Your task to perform on an android device: Search for logitech g903 on amazon.com, select the first entry, add it to the cart, then select checkout. Image 0: 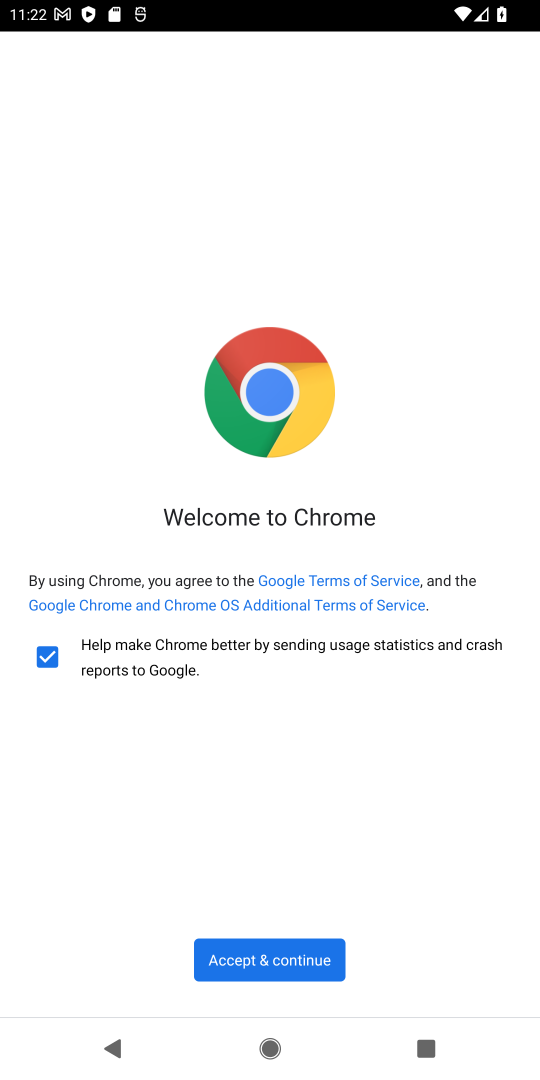
Step 0: click (319, 966)
Your task to perform on an android device: Search for logitech g903 on amazon.com, select the first entry, add it to the cart, then select checkout. Image 1: 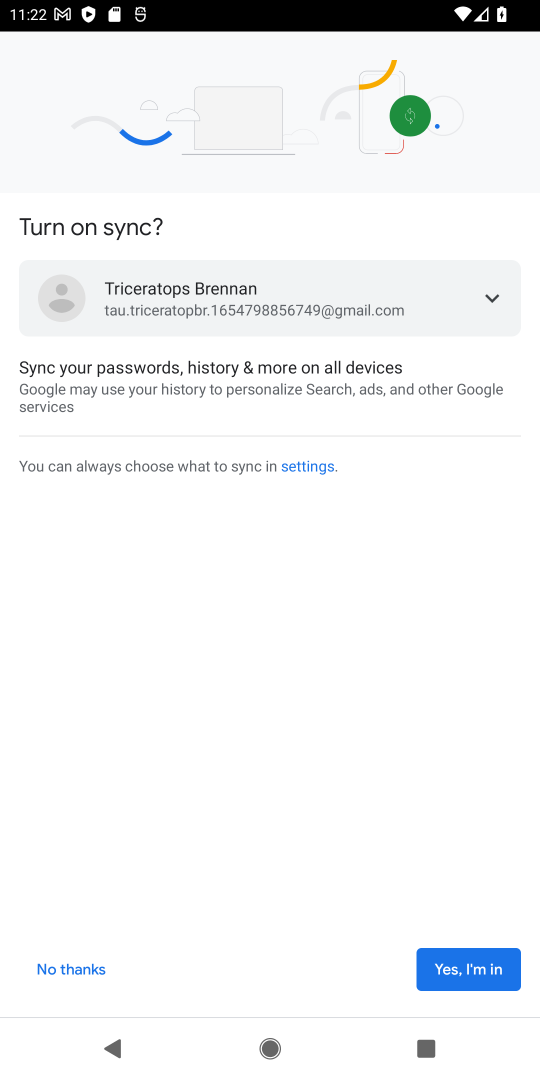
Step 1: click (441, 982)
Your task to perform on an android device: Search for logitech g903 on amazon.com, select the first entry, add it to the cart, then select checkout. Image 2: 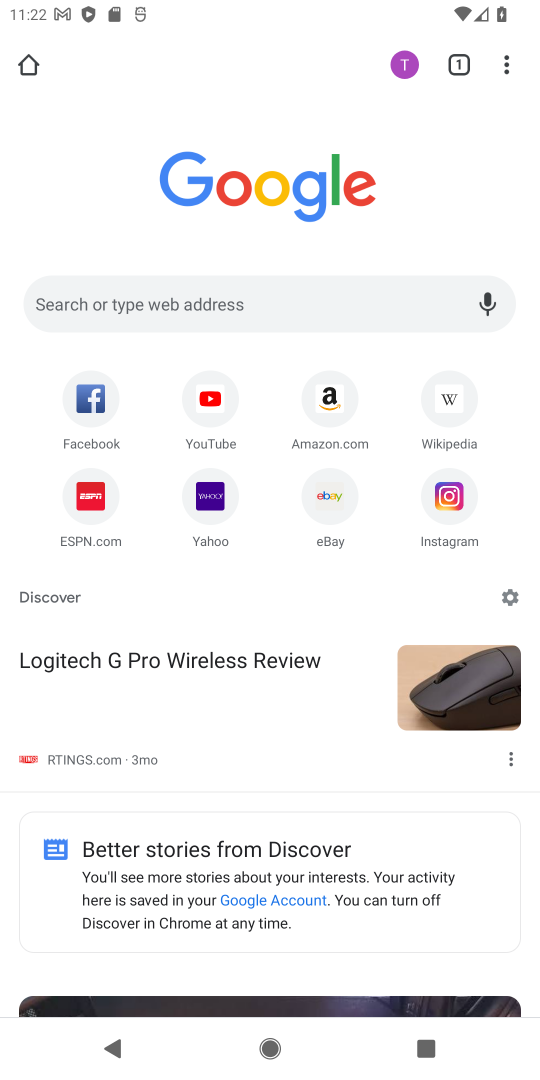
Step 2: click (329, 399)
Your task to perform on an android device: Search for logitech g903 on amazon.com, select the first entry, add it to the cart, then select checkout. Image 3: 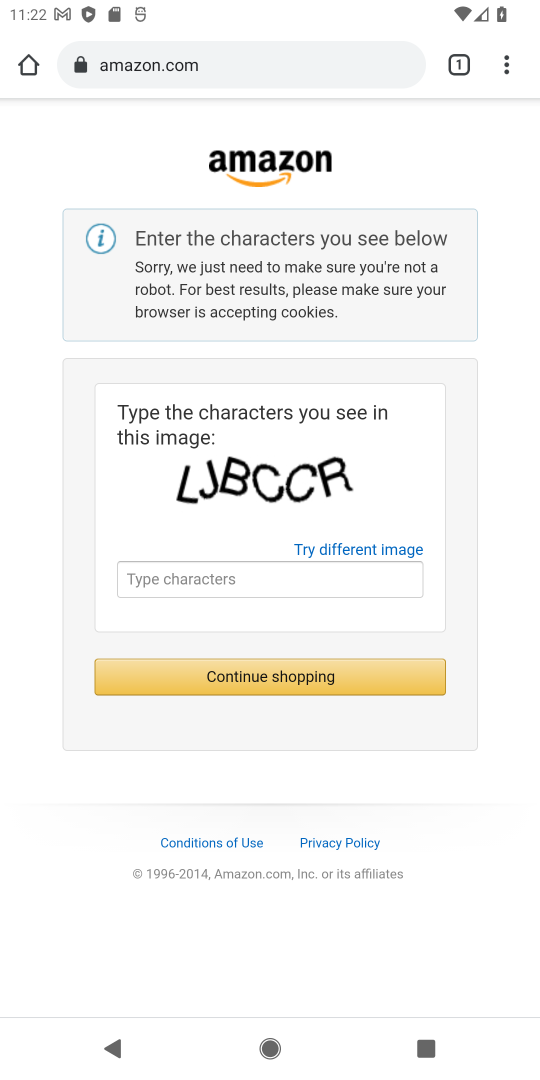
Step 3: click (328, 596)
Your task to perform on an android device: Search for logitech g903 on amazon.com, select the first entry, add it to the cart, then select checkout. Image 4: 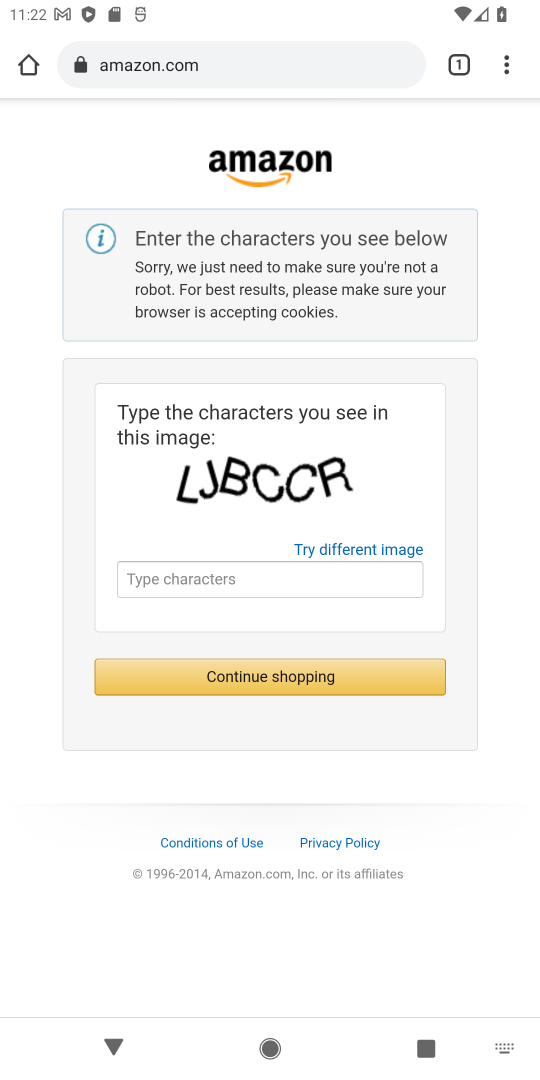
Step 4: click (323, 590)
Your task to perform on an android device: Search for logitech g903 on amazon.com, select the first entry, add it to the cart, then select checkout. Image 5: 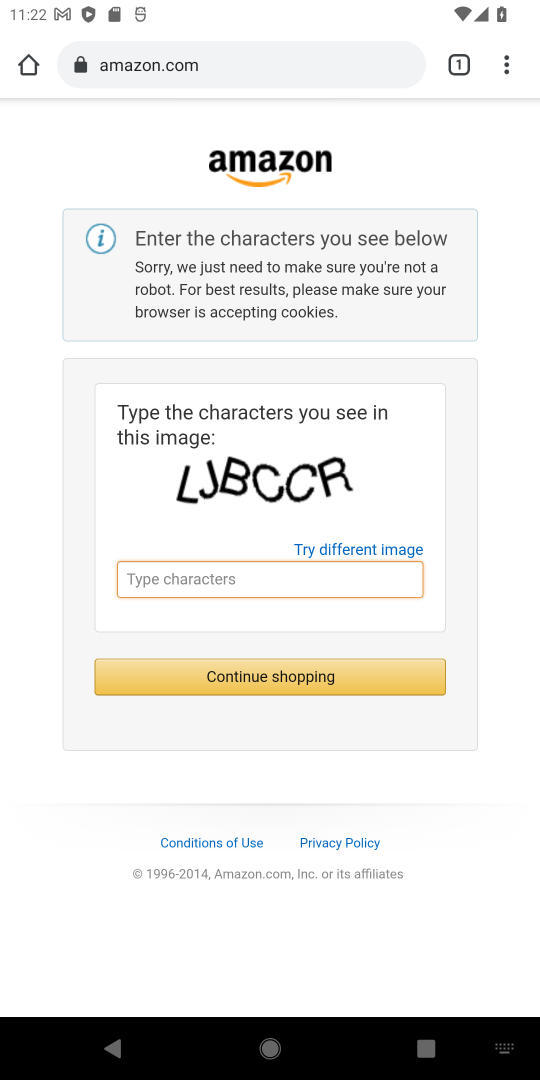
Step 5: type "LJBCCR"
Your task to perform on an android device: Search for logitech g903 on amazon.com, select the first entry, add it to the cart, then select checkout. Image 6: 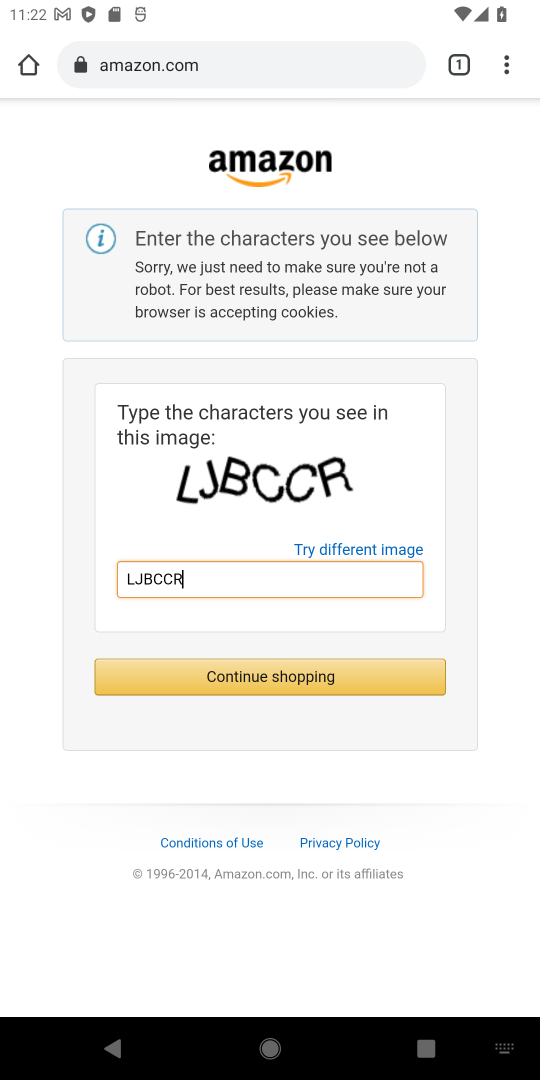
Step 6: click (296, 674)
Your task to perform on an android device: Search for logitech g903 on amazon.com, select the first entry, add it to the cart, then select checkout. Image 7: 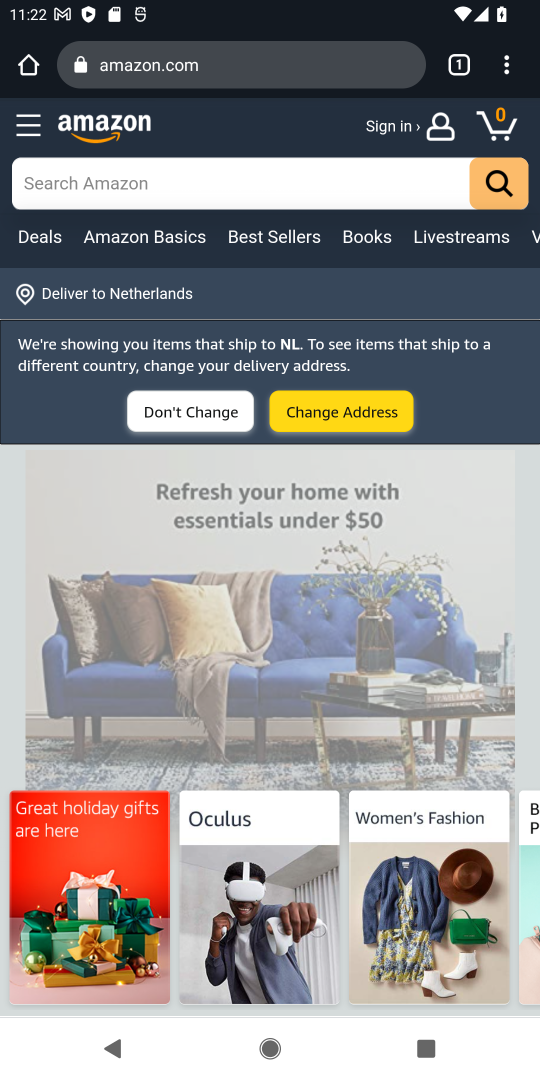
Step 7: click (276, 199)
Your task to perform on an android device: Search for logitech g903 on amazon.com, select the first entry, add it to the cart, then select checkout. Image 8: 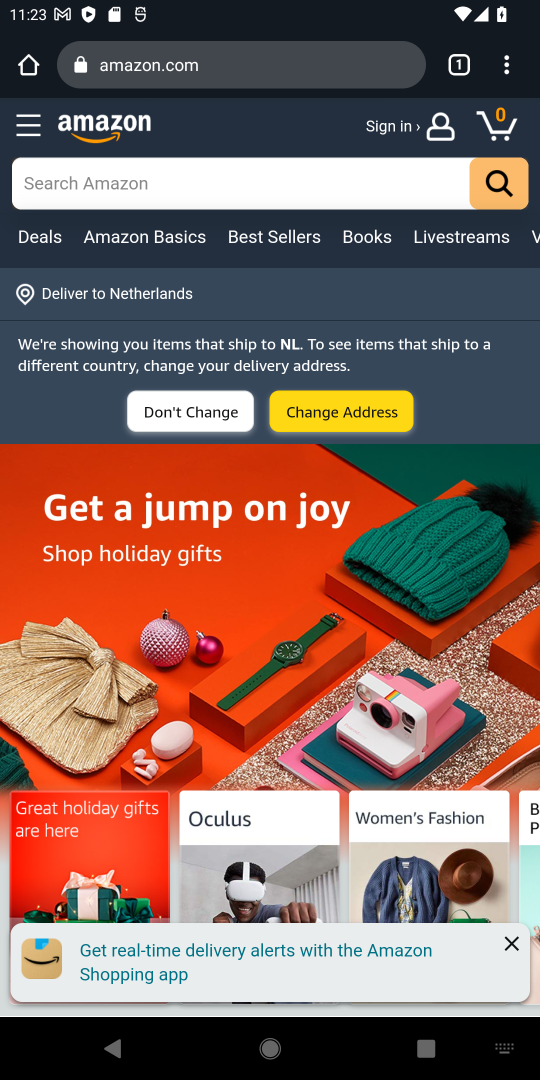
Step 8: type "logitech g903"
Your task to perform on an android device: Search for logitech g903 on amazon.com, select the first entry, add it to the cart, then select checkout. Image 9: 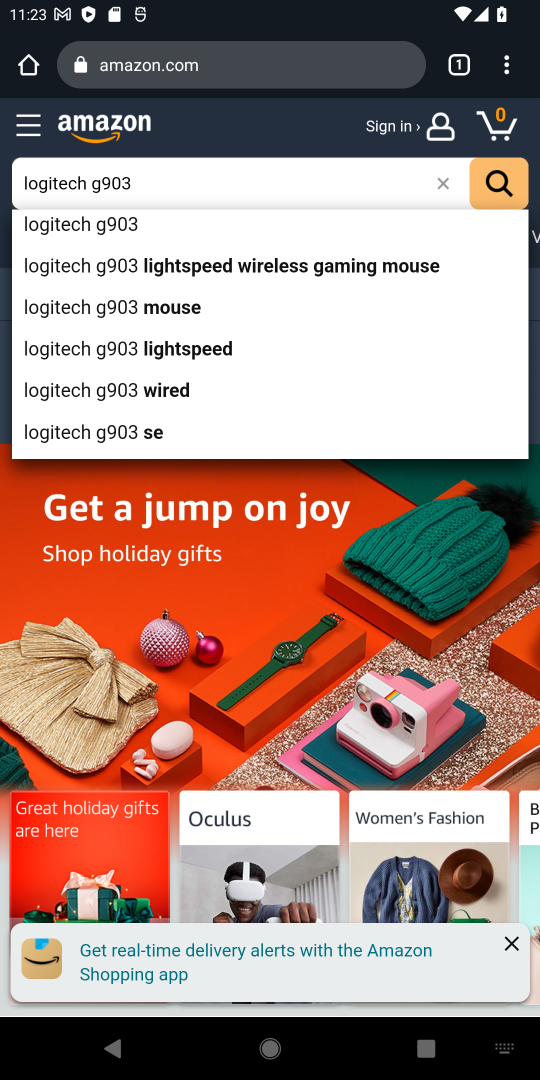
Step 9: click (494, 178)
Your task to perform on an android device: Search for logitech g903 on amazon.com, select the first entry, add it to the cart, then select checkout. Image 10: 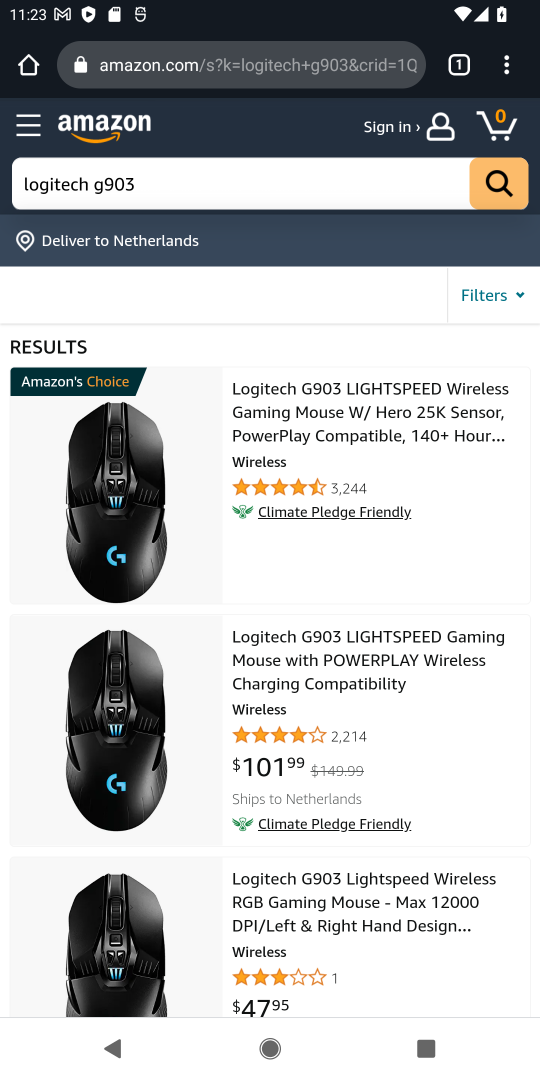
Step 10: click (324, 451)
Your task to perform on an android device: Search for logitech g903 on amazon.com, select the first entry, add it to the cart, then select checkout. Image 11: 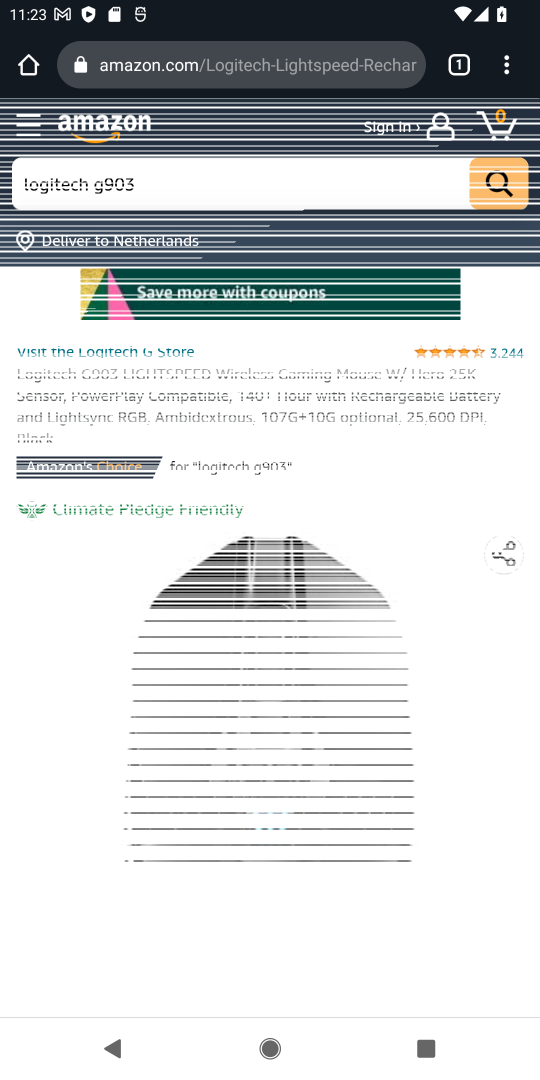
Step 11: drag from (360, 899) to (360, 687)
Your task to perform on an android device: Search for logitech g903 on amazon.com, select the first entry, add it to the cart, then select checkout. Image 12: 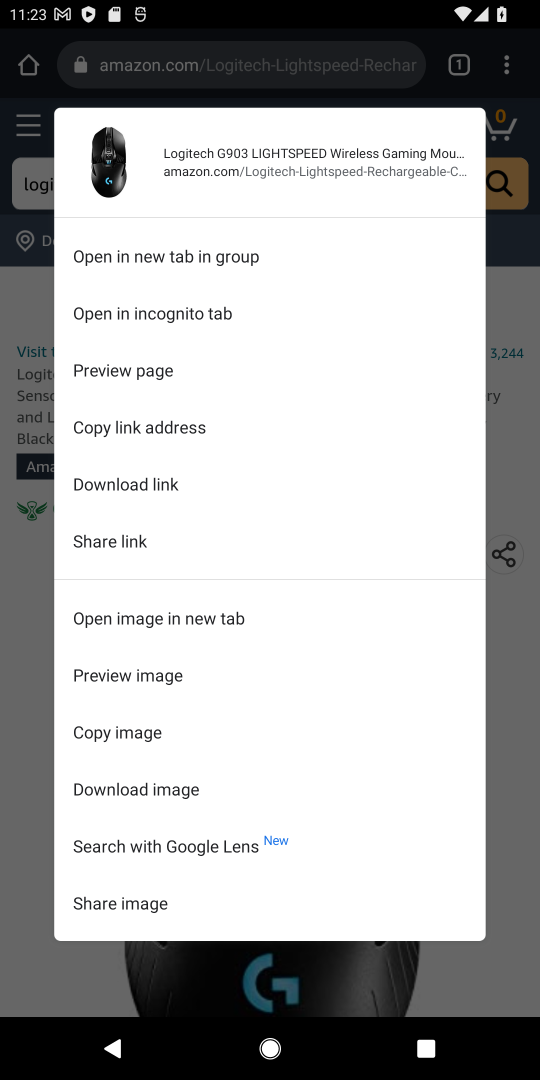
Step 12: click (301, 1004)
Your task to perform on an android device: Search for logitech g903 on amazon.com, select the first entry, add it to the cart, then select checkout. Image 13: 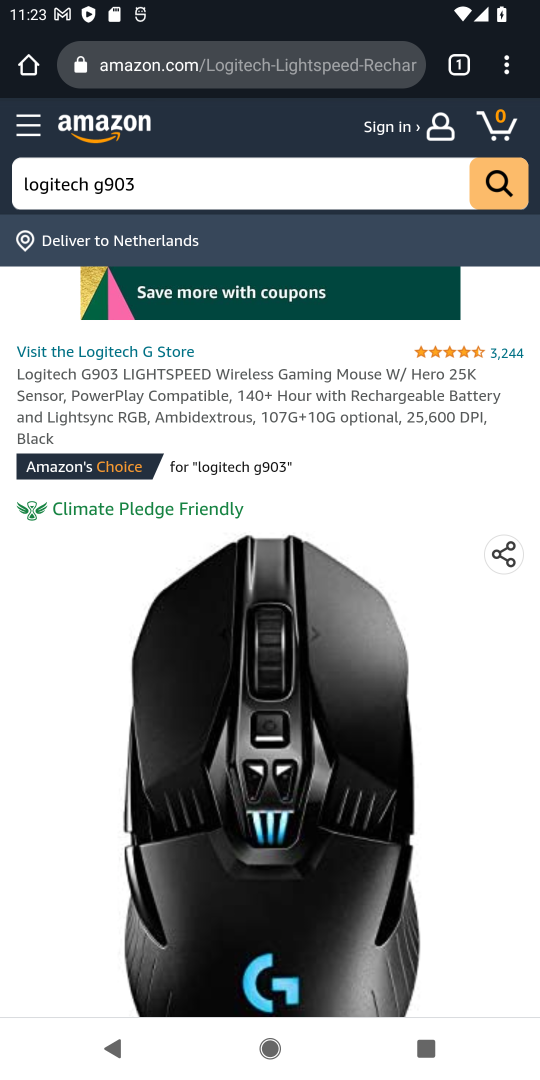
Step 13: drag from (301, 1004) to (273, 491)
Your task to perform on an android device: Search for logitech g903 on amazon.com, select the first entry, add it to the cart, then select checkout. Image 14: 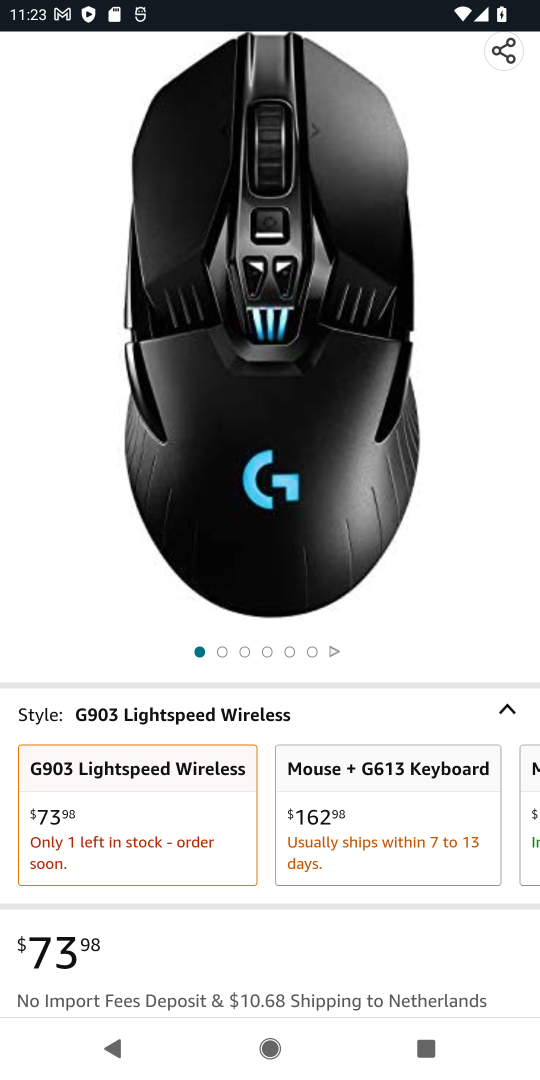
Step 14: drag from (304, 928) to (291, 488)
Your task to perform on an android device: Search for logitech g903 on amazon.com, select the first entry, add it to the cart, then select checkout. Image 15: 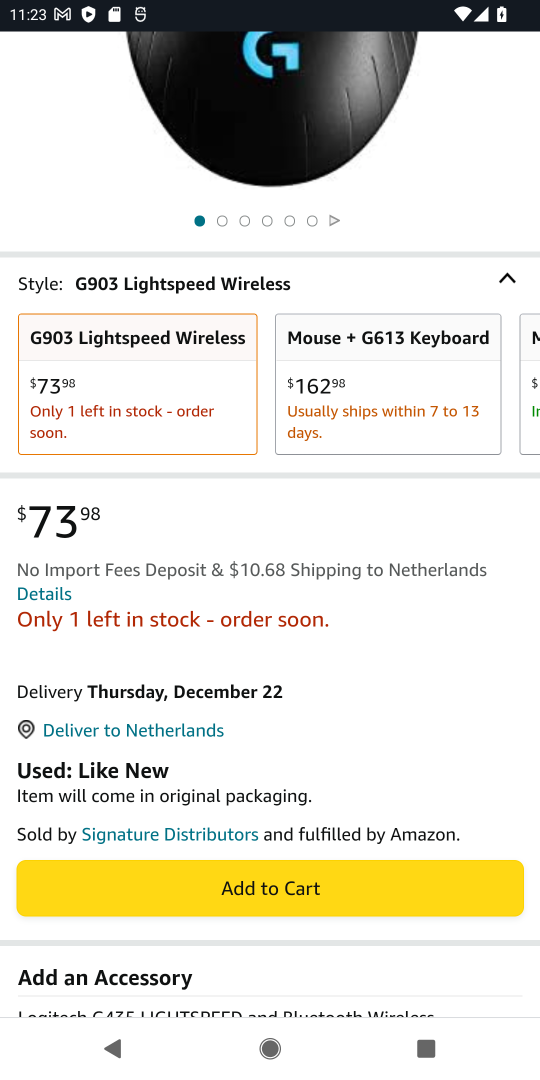
Step 15: click (363, 879)
Your task to perform on an android device: Search for logitech g903 on amazon.com, select the first entry, add it to the cart, then select checkout. Image 16: 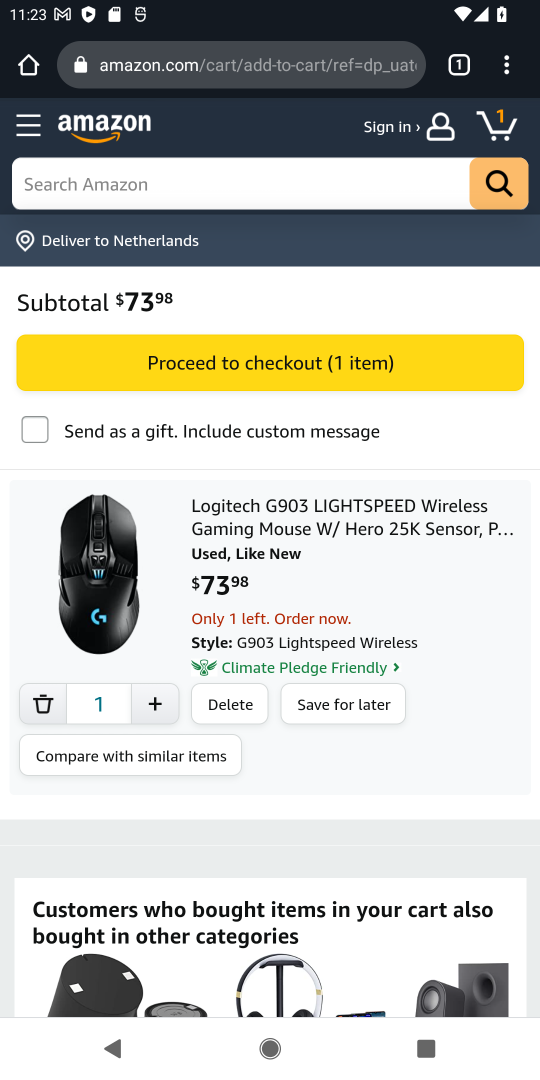
Step 16: task complete